Your task to perform on an android device: Open sound settings Image 0: 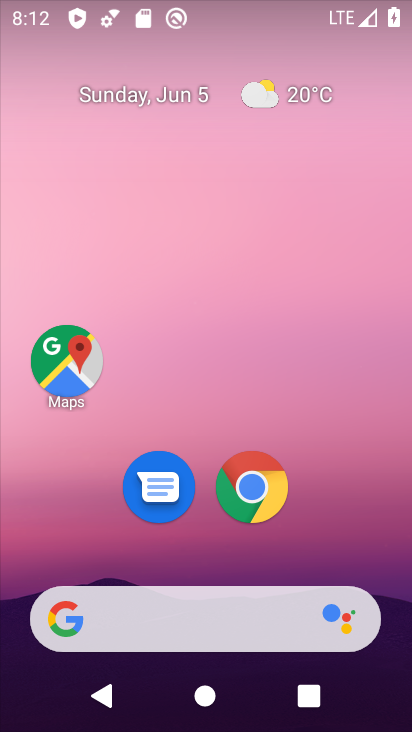
Step 0: drag from (198, 560) to (200, 213)
Your task to perform on an android device: Open sound settings Image 1: 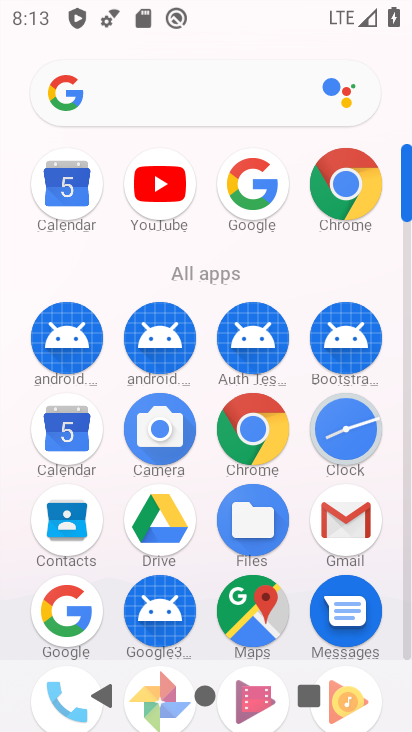
Step 1: drag from (211, 562) to (225, 255)
Your task to perform on an android device: Open sound settings Image 2: 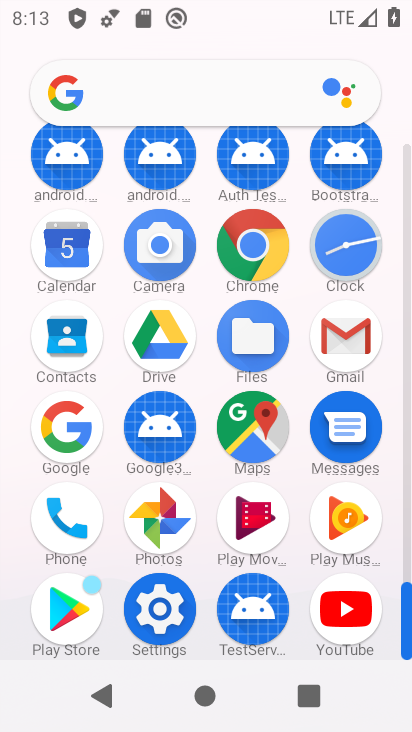
Step 2: click (164, 606)
Your task to perform on an android device: Open sound settings Image 3: 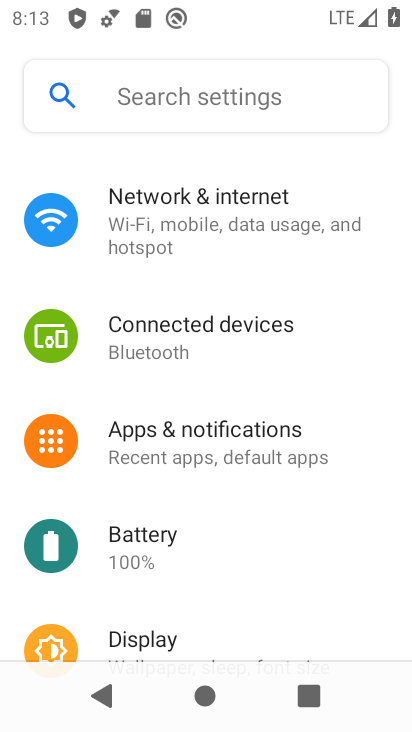
Step 3: drag from (205, 612) to (254, 302)
Your task to perform on an android device: Open sound settings Image 4: 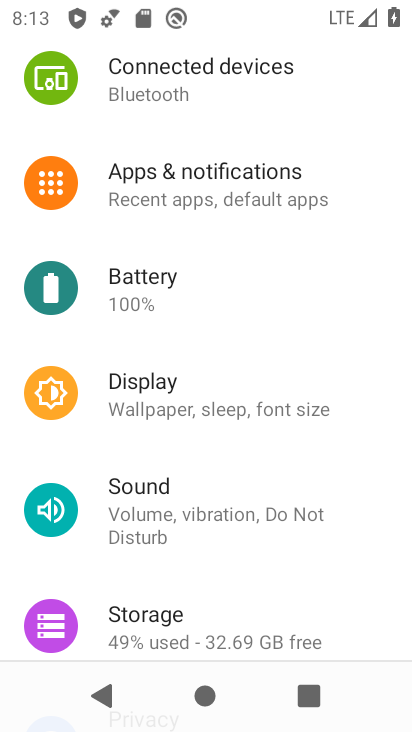
Step 4: drag from (226, 541) to (212, 399)
Your task to perform on an android device: Open sound settings Image 5: 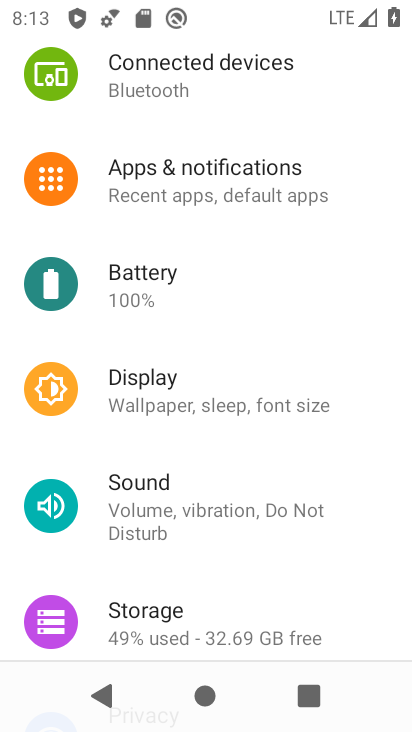
Step 5: click (178, 492)
Your task to perform on an android device: Open sound settings Image 6: 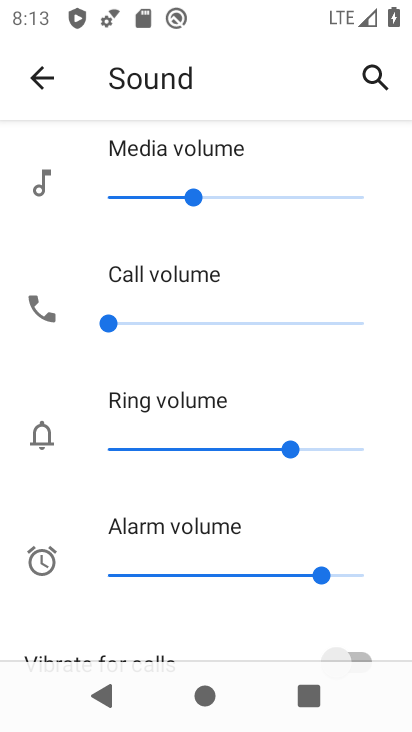
Step 6: task complete